Your task to perform on an android device: snooze an email in the gmail app Image 0: 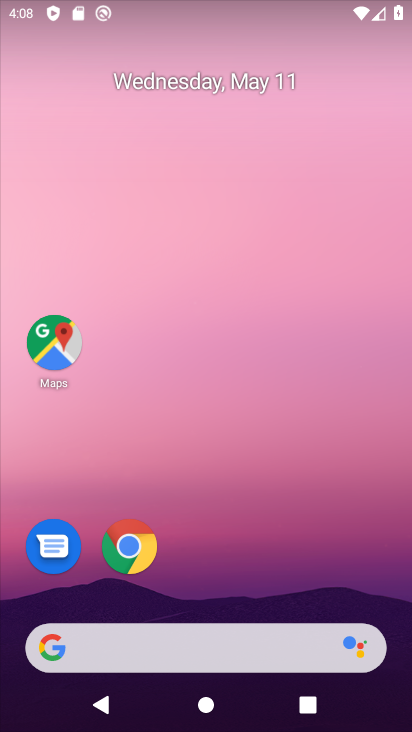
Step 0: drag from (237, 625) to (213, 185)
Your task to perform on an android device: snooze an email in the gmail app Image 1: 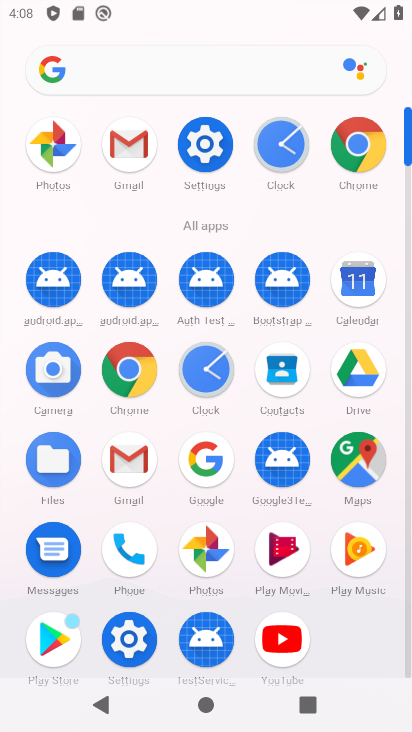
Step 1: click (136, 464)
Your task to perform on an android device: snooze an email in the gmail app Image 2: 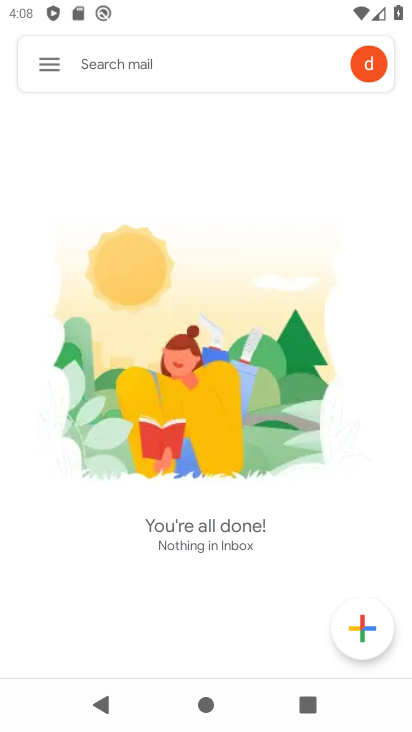
Step 2: click (39, 68)
Your task to perform on an android device: snooze an email in the gmail app Image 3: 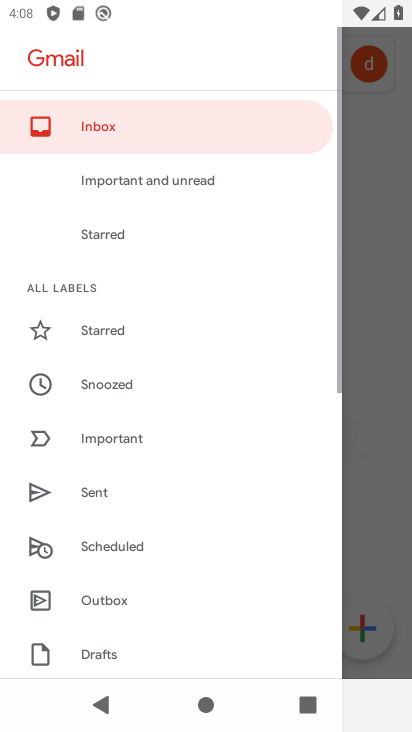
Step 3: click (108, 388)
Your task to perform on an android device: snooze an email in the gmail app Image 4: 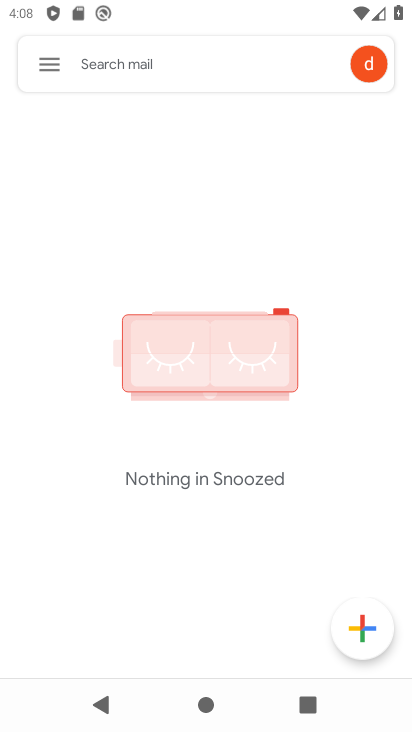
Step 4: task complete